Your task to perform on an android device: install app "YouTube Kids" Image 0: 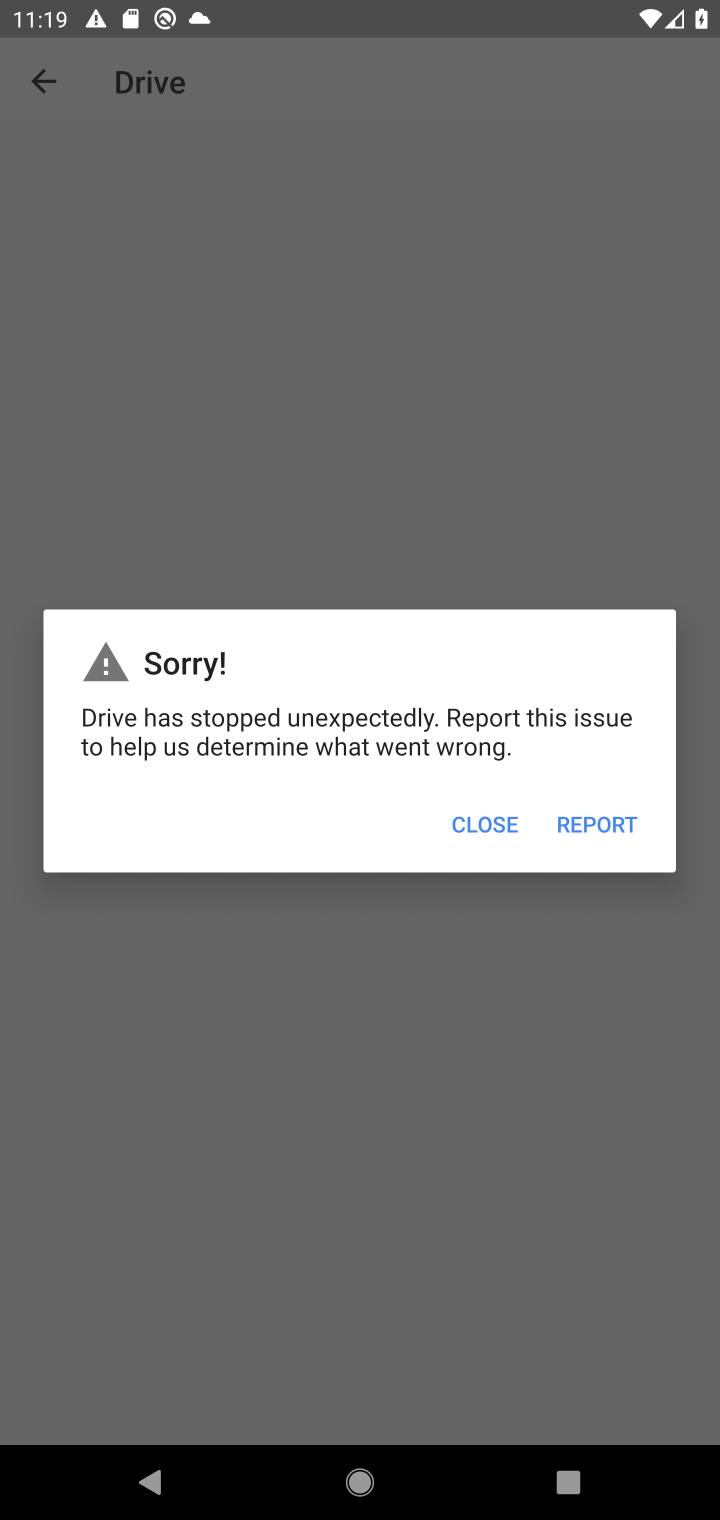
Step 0: press home button
Your task to perform on an android device: install app "YouTube Kids" Image 1: 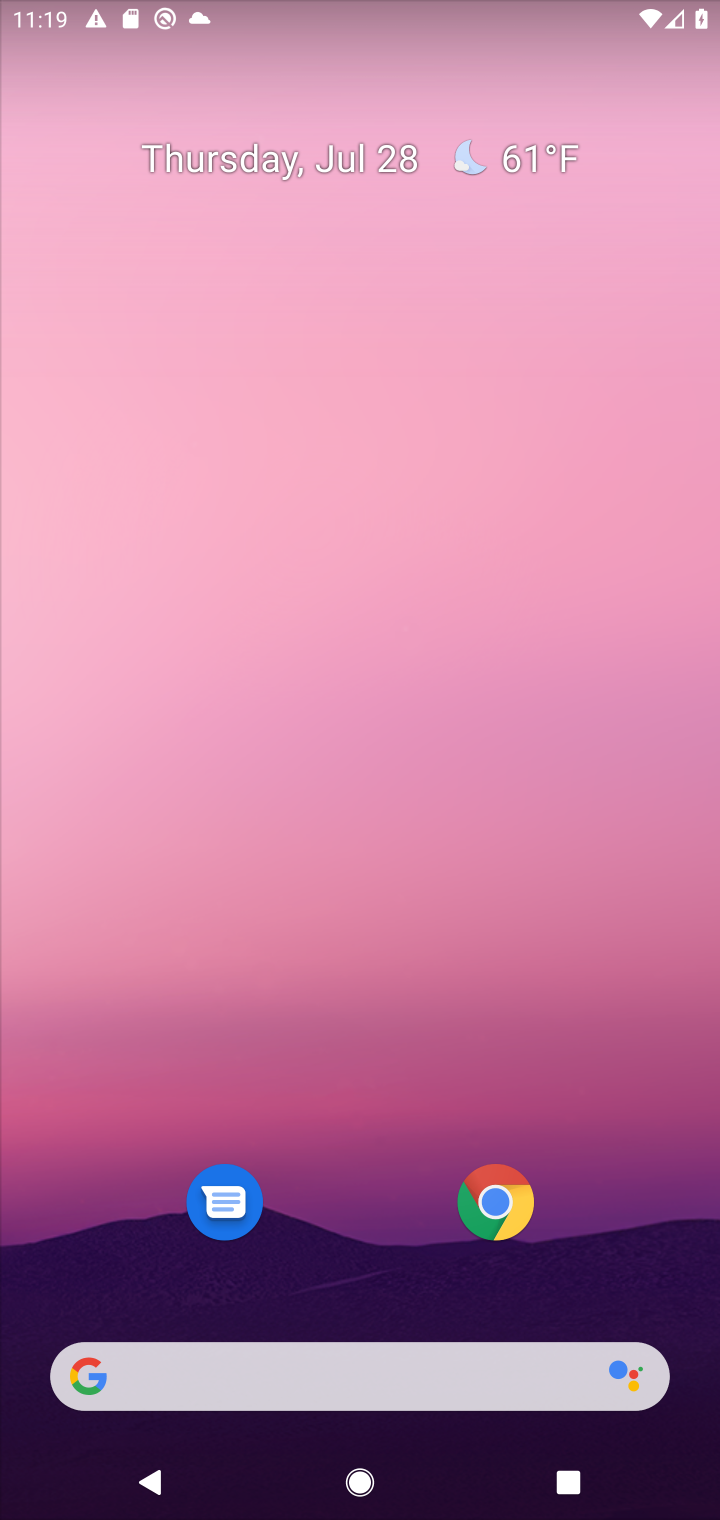
Step 1: click (476, 1367)
Your task to perform on an android device: install app "YouTube Kids" Image 2: 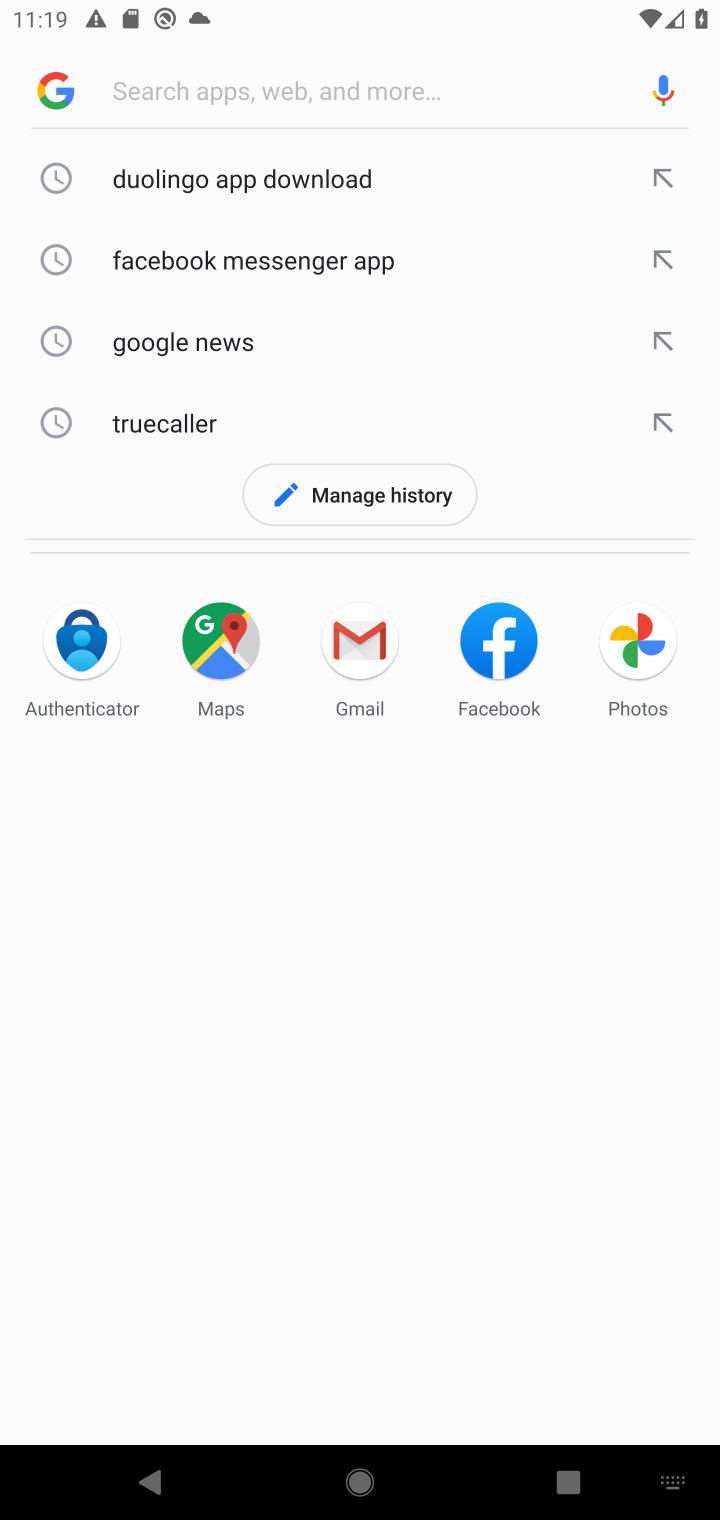
Step 2: type "youtube kids"
Your task to perform on an android device: install app "YouTube Kids" Image 3: 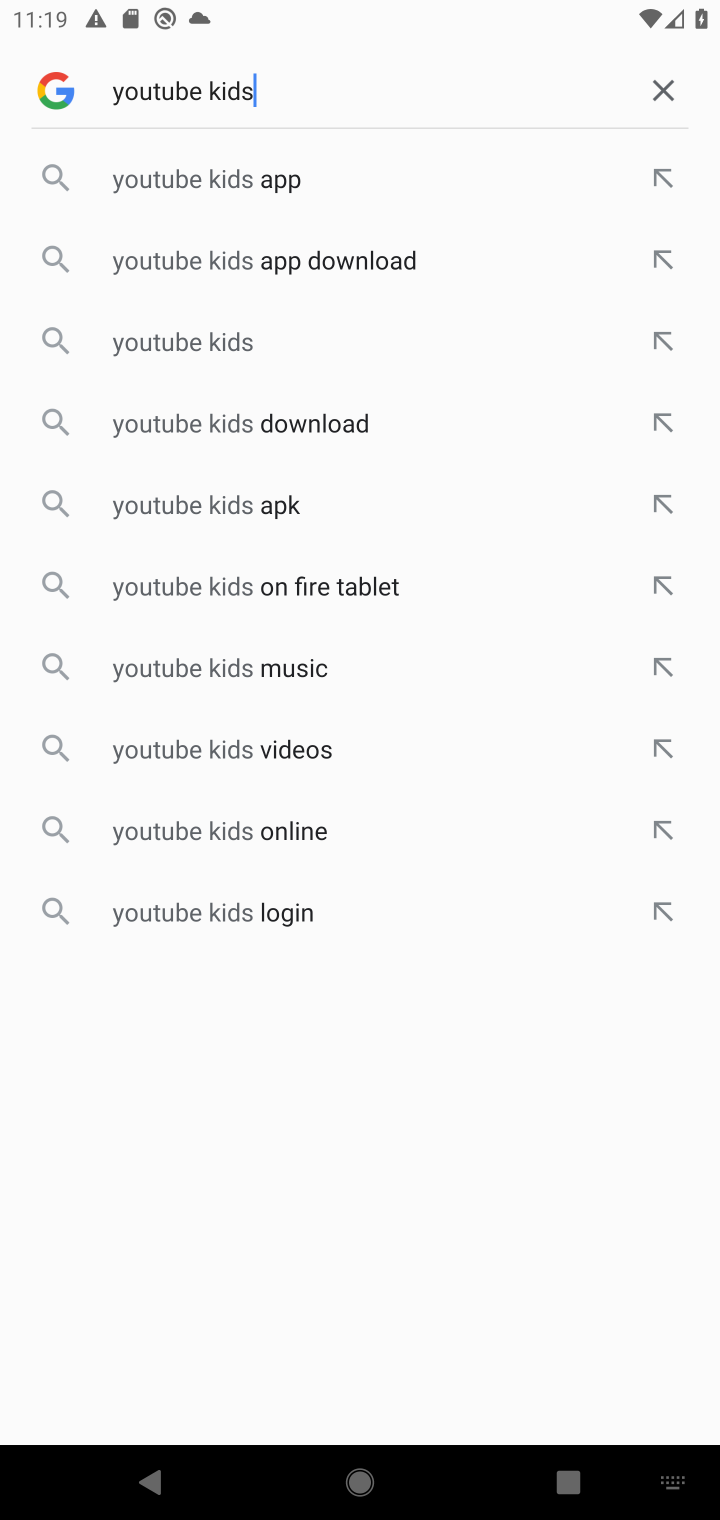
Step 3: click (358, 199)
Your task to perform on an android device: install app "YouTube Kids" Image 4: 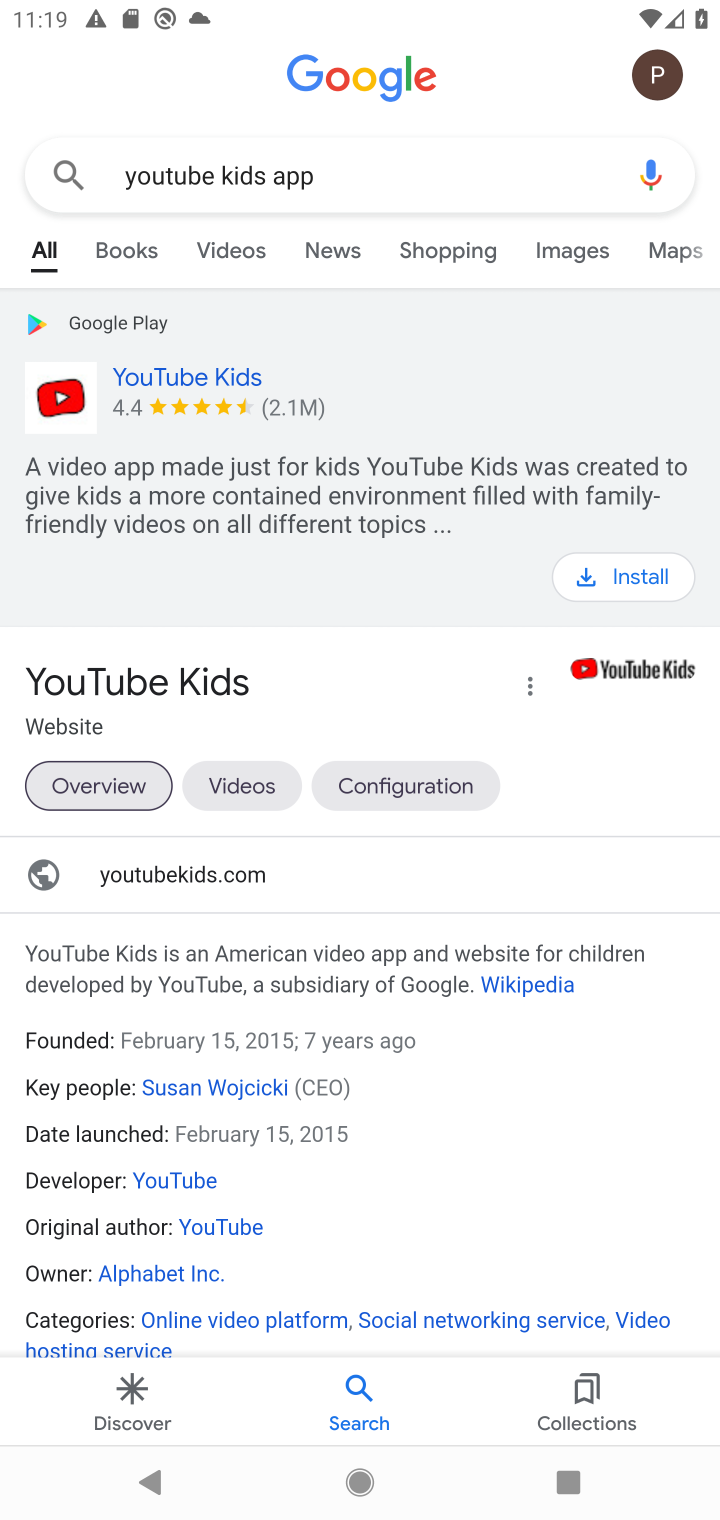
Step 4: click (604, 581)
Your task to perform on an android device: install app "YouTube Kids" Image 5: 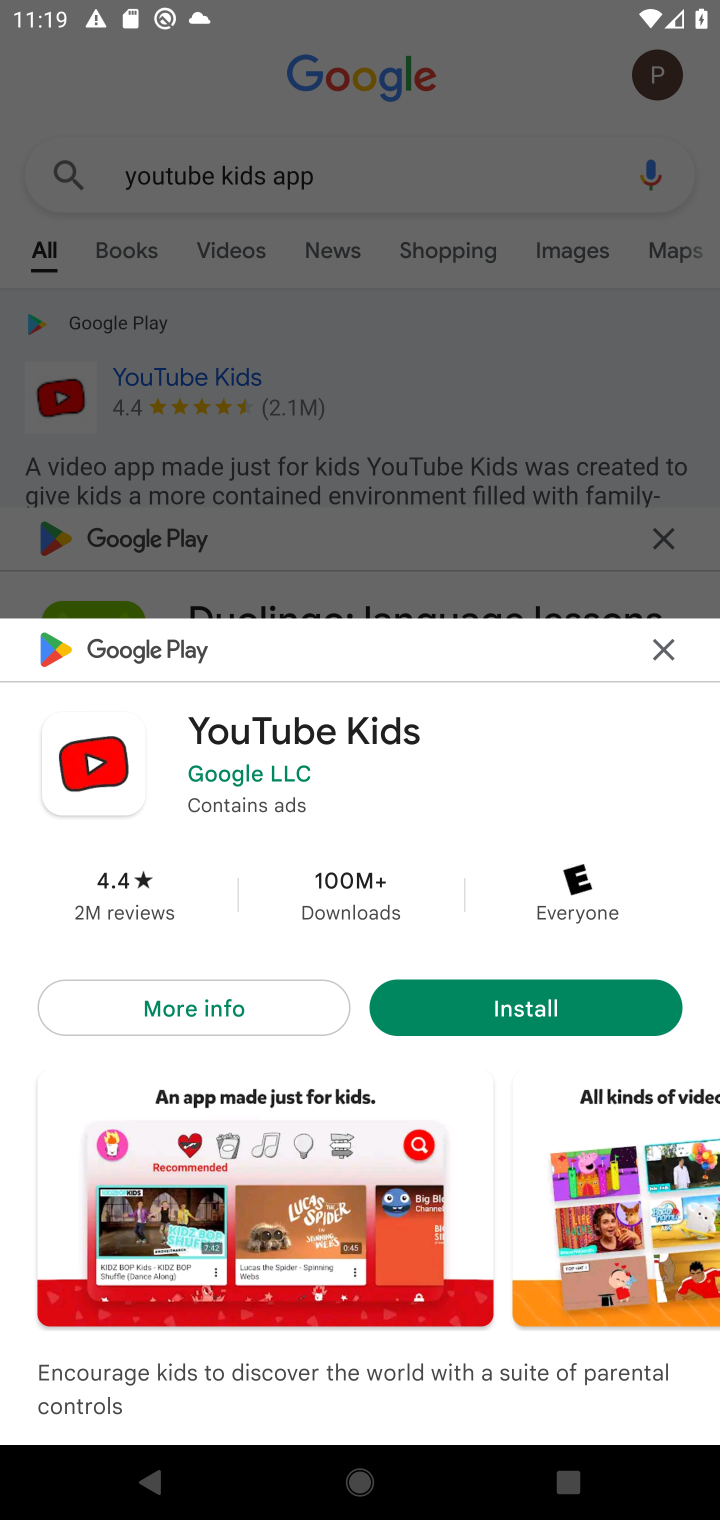
Step 5: click (529, 1016)
Your task to perform on an android device: install app "YouTube Kids" Image 6: 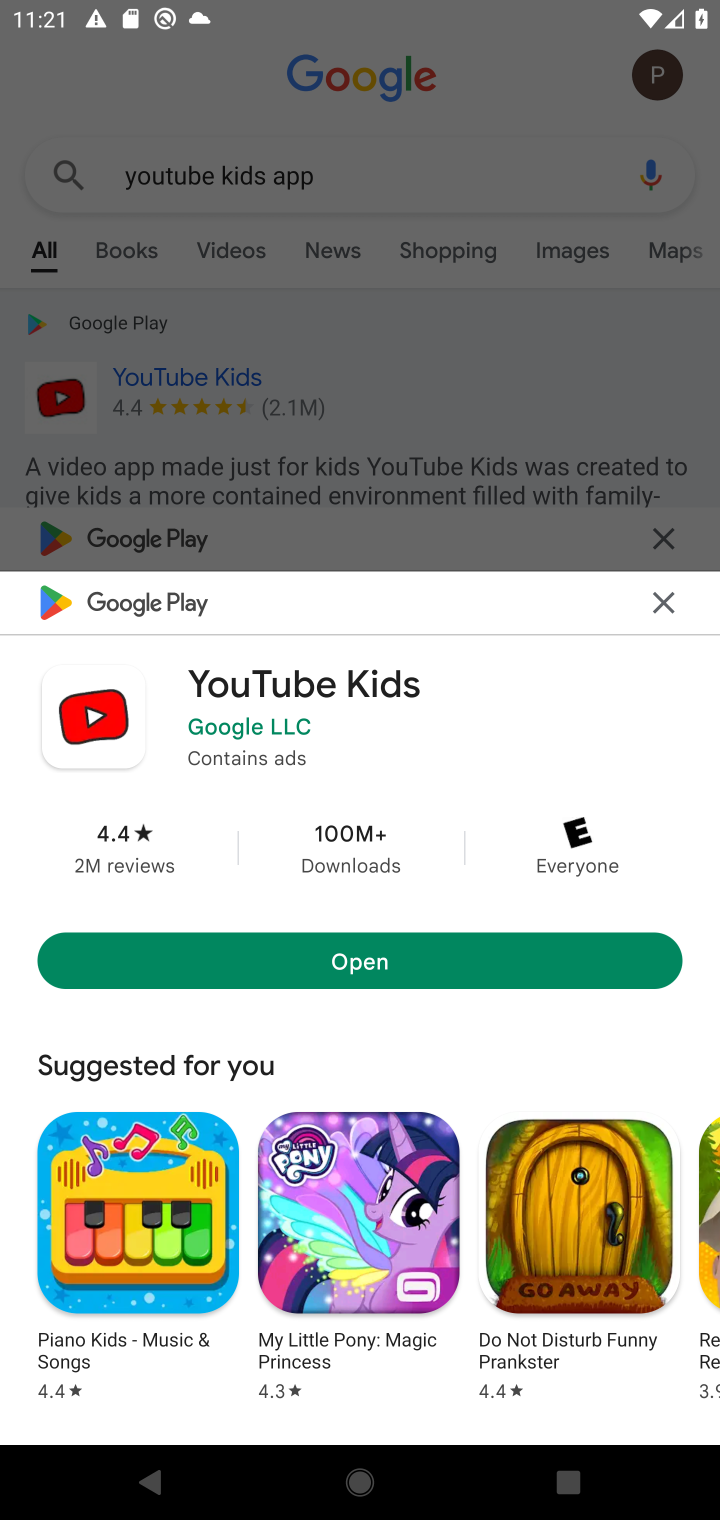
Step 6: task complete